Your task to perform on an android device: Add bose quietcomfort 35 to the cart on newegg.com Image 0: 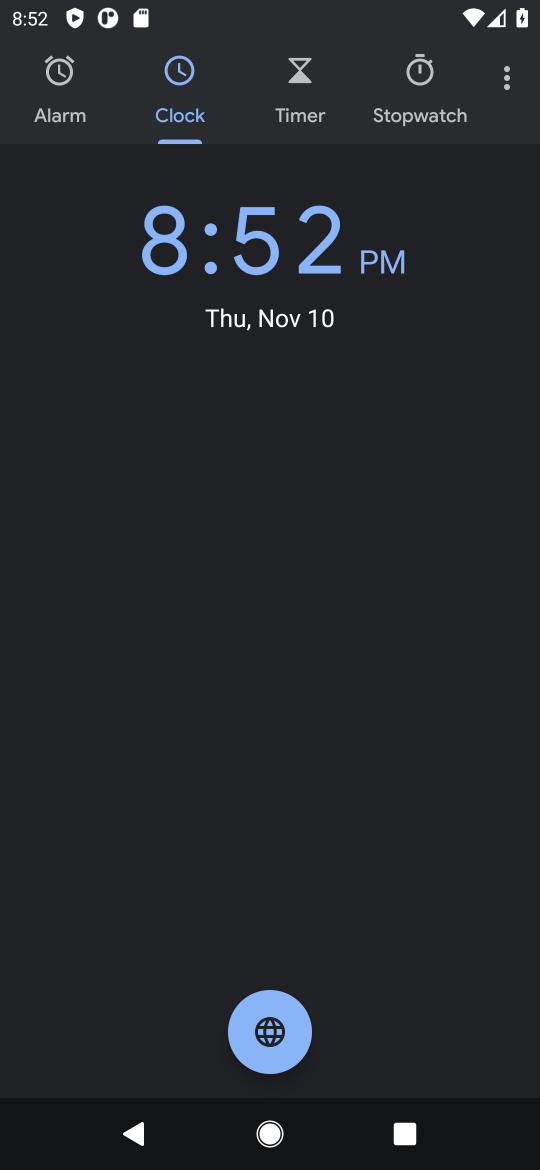
Step 0: press home button
Your task to perform on an android device: Add bose quietcomfort 35 to the cart on newegg.com Image 1: 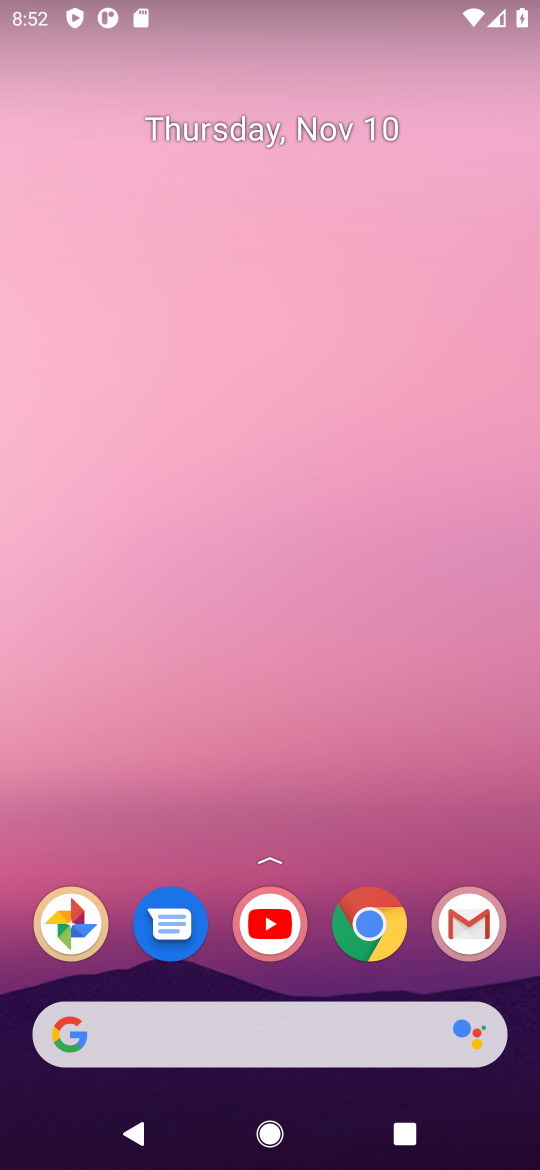
Step 1: click (374, 929)
Your task to perform on an android device: Add bose quietcomfort 35 to the cart on newegg.com Image 2: 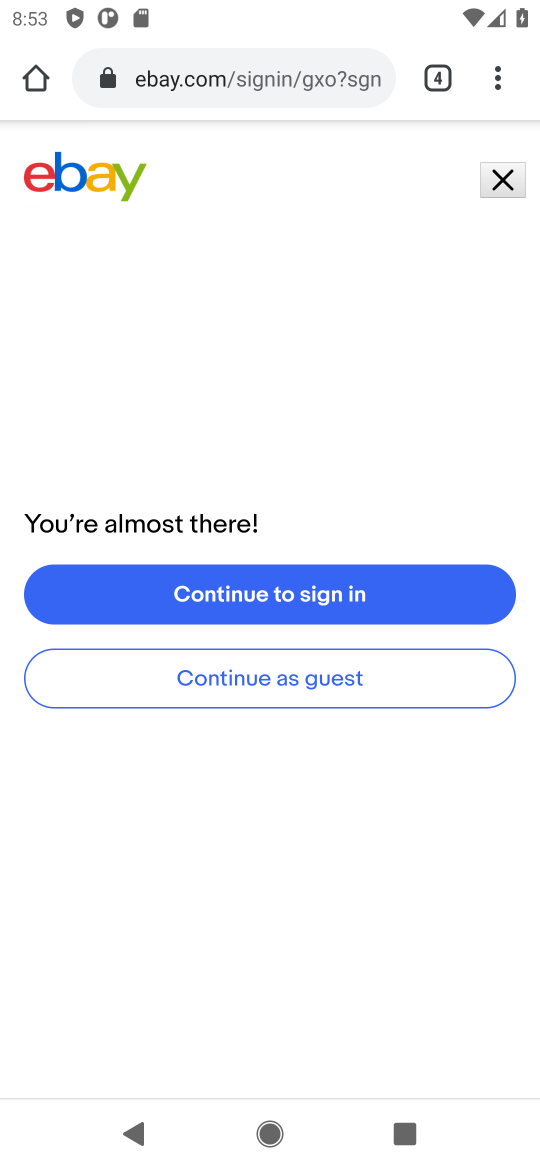
Step 2: click (213, 85)
Your task to perform on an android device: Add bose quietcomfort 35 to the cart on newegg.com Image 3: 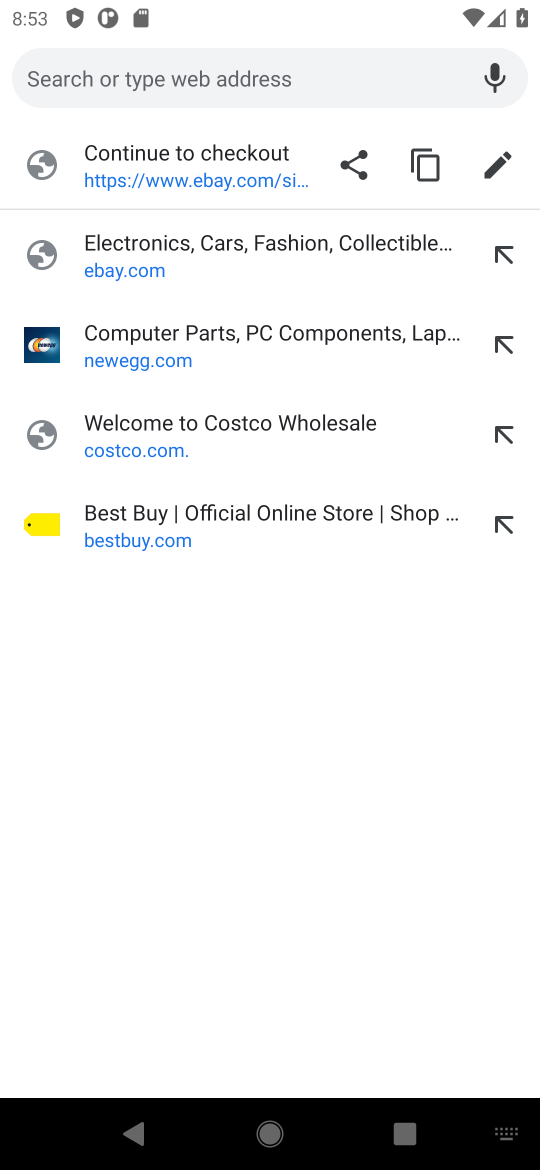
Step 3: click (137, 354)
Your task to perform on an android device: Add bose quietcomfort 35 to the cart on newegg.com Image 4: 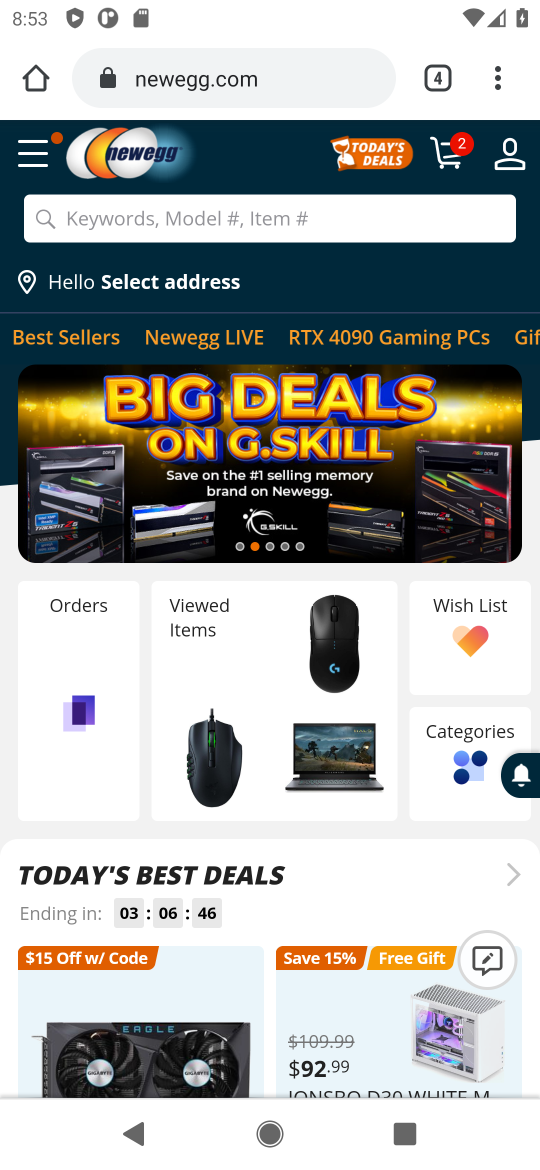
Step 4: click (234, 227)
Your task to perform on an android device: Add bose quietcomfort 35 to the cart on newegg.com Image 5: 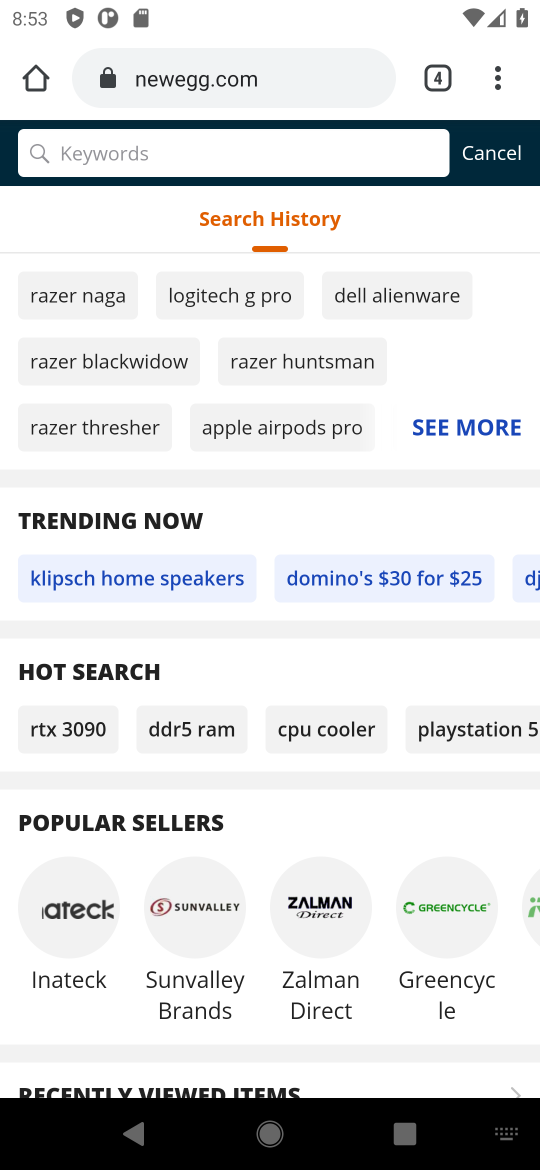
Step 5: type "bose quietcomfort 35"
Your task to perform on an android device: Add bose quietcomfort 35 to the cart on newegg.com Image 6: 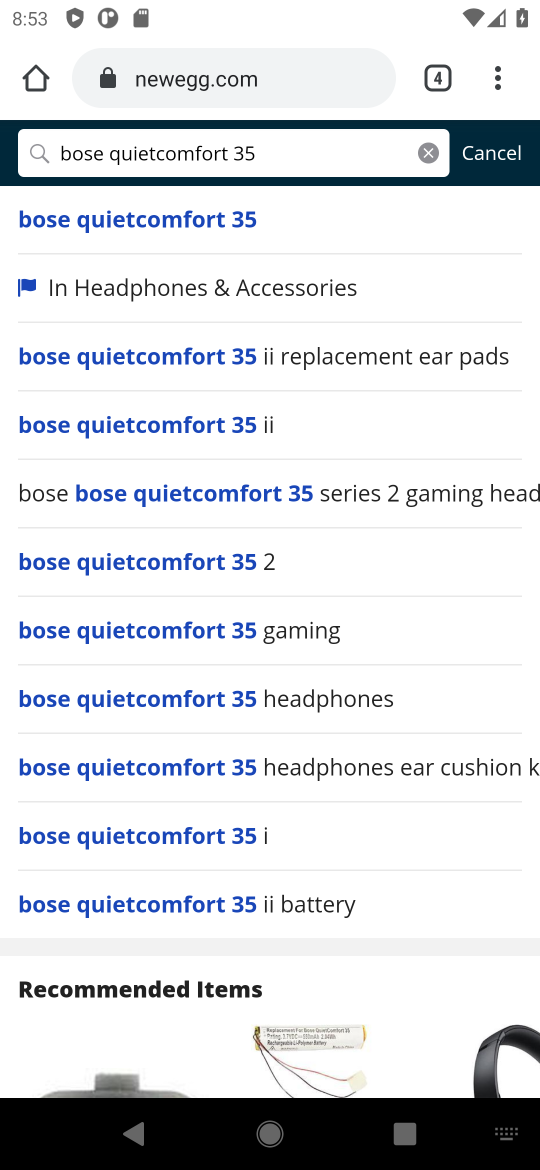
Step 6: click (187, 234)
Your task to perform on an android device: Add bose quietcomfort 35 to the cart on newegg.com Image 7: 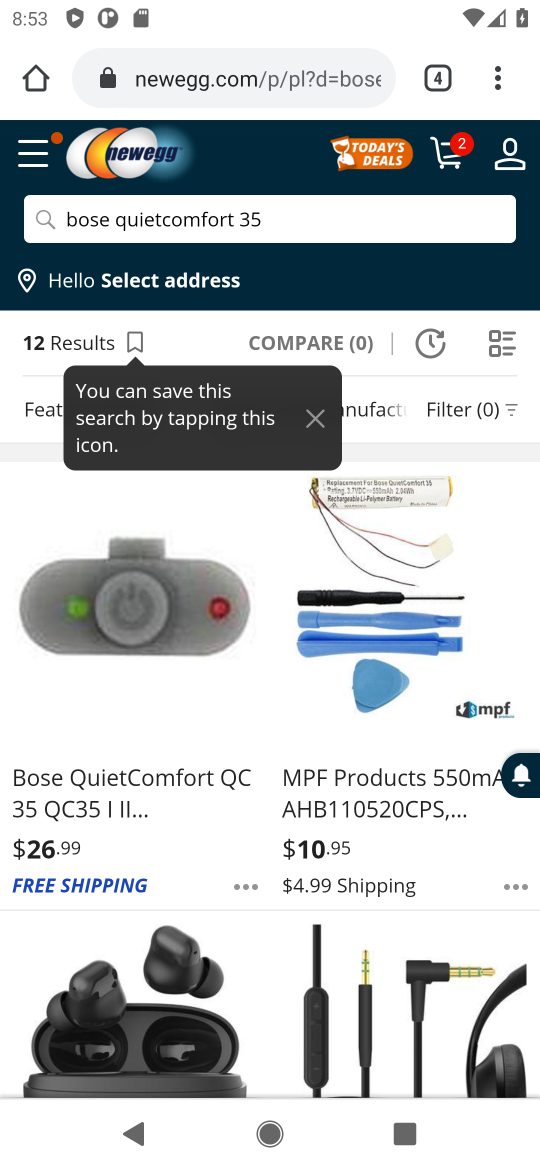
Step 7: click (125, 663)
Your task to perform on an android device: Add bose quietcomfort 35 to the cart on newegg.com Image 8: 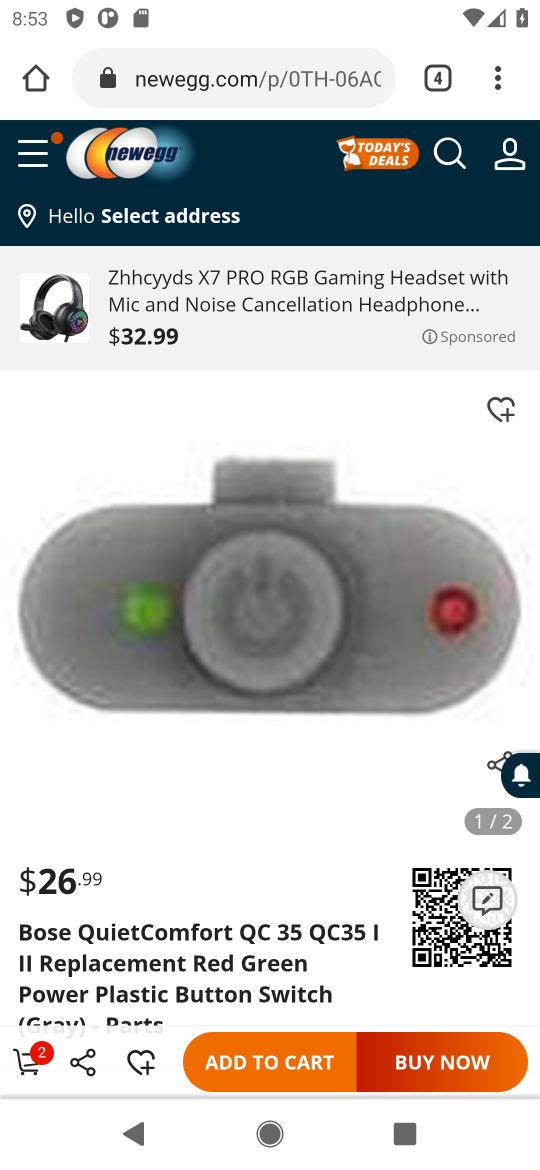
Step 8: click (251, 1066)
Your task to perform on an android device: Add bose quietcomfort 35 to the cart on newegg.com Image 9: 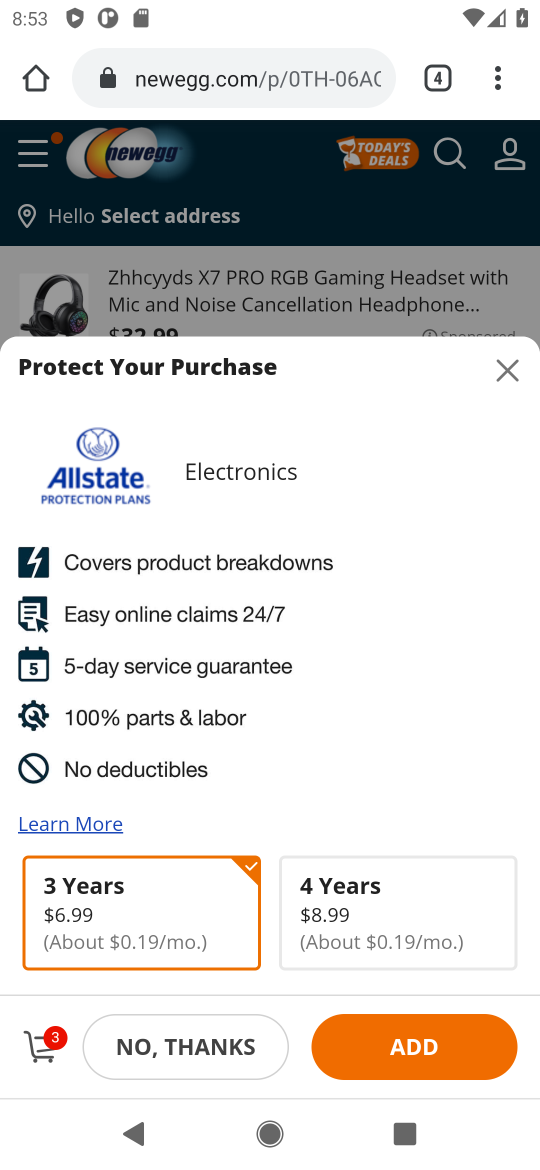
Step 9: task complete